Your task to perform on an android device: What's on my calendar tomorrow? Image 0: 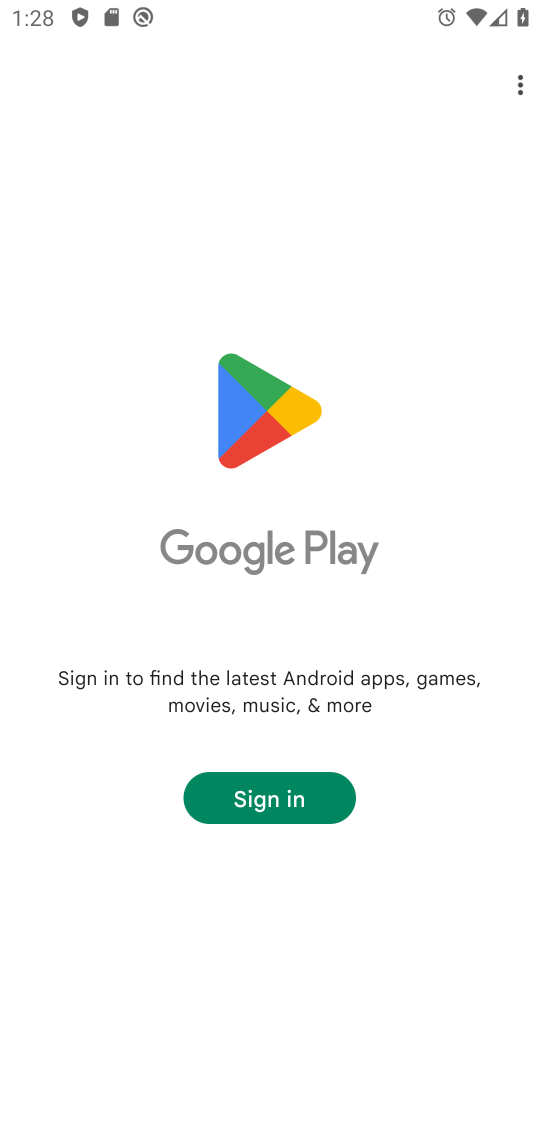
Step 0: press home button
Your task to perform on an android device: What's on my calendar tomorrow? Image 1: 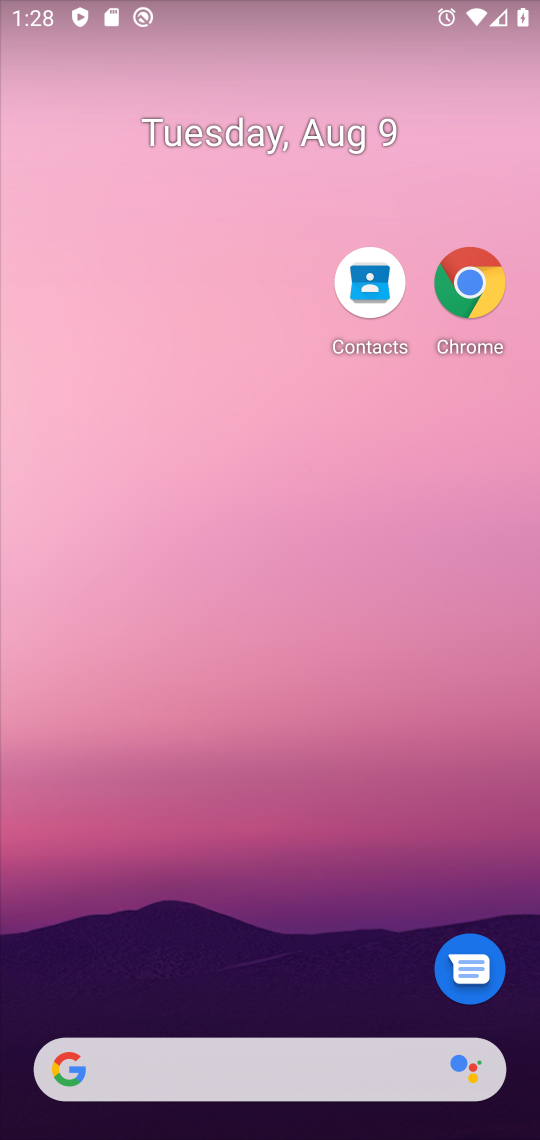
Step 1: drag from (267, 897) to (382, 96)
Your task to perform on an android device: What's on my calendar tomorrow? Image 2: 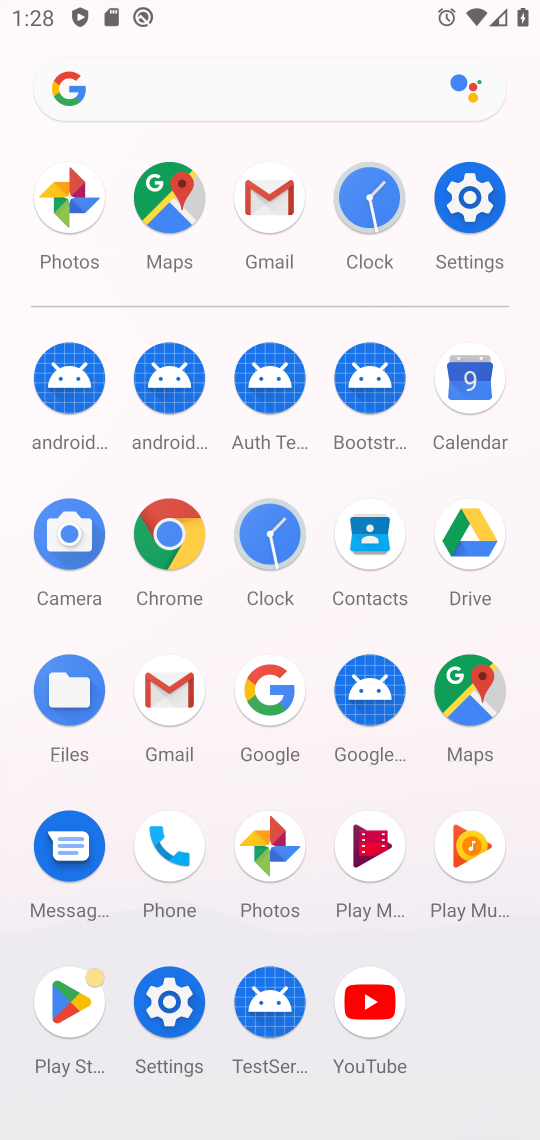
Step 2: click (458, 402)
Your task to perform on an android device: What's on my calendar tomorrow? Image 3: 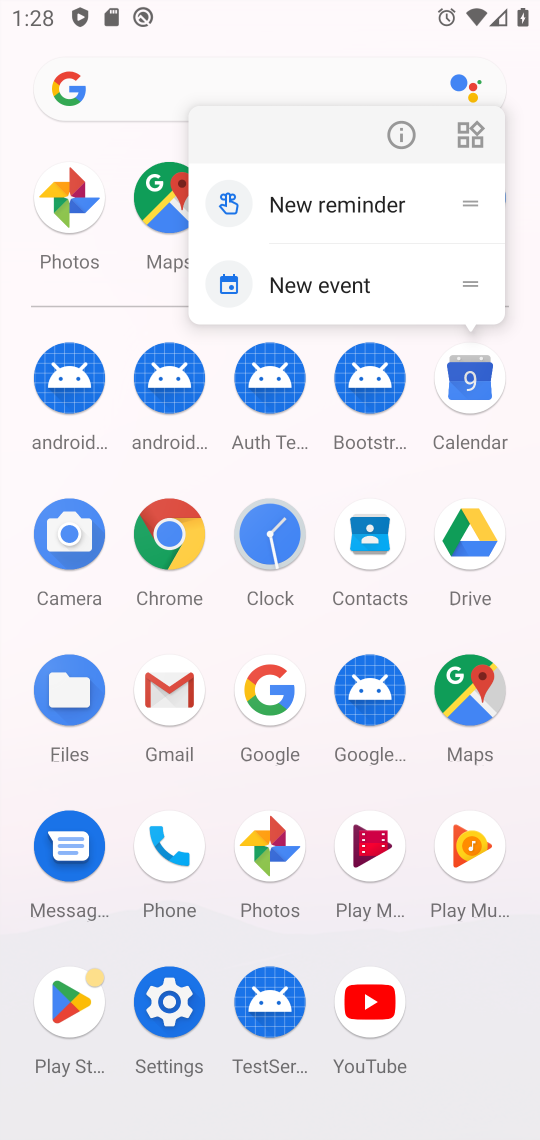
Step 3: click (398, 142)
Your task to perform on an android device: What's on my calendar tomorrow? Image 4: 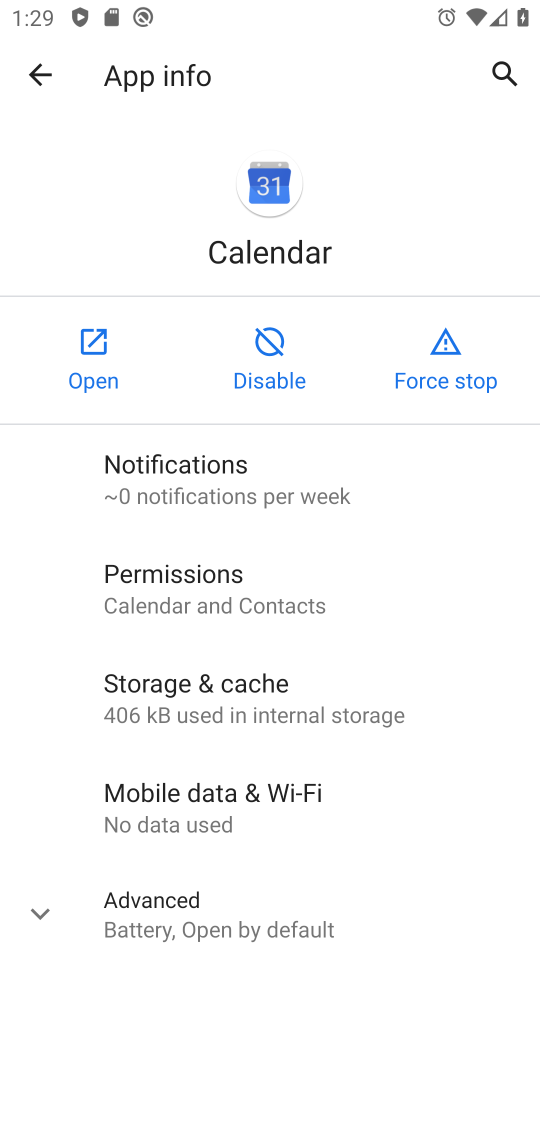
Step 4: click (107, 366)
Your task to perform on an android device: What's on my calendar tomorrow? Image 5: 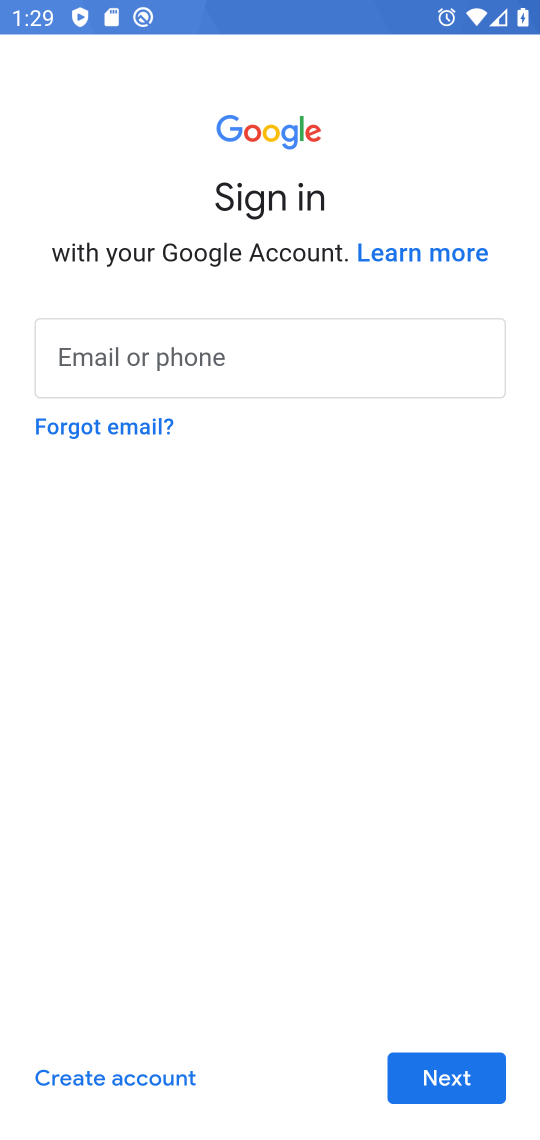
Step 5: press back button
Your task to perform on an android device: What's on my calendar tomorrow? Image 6: 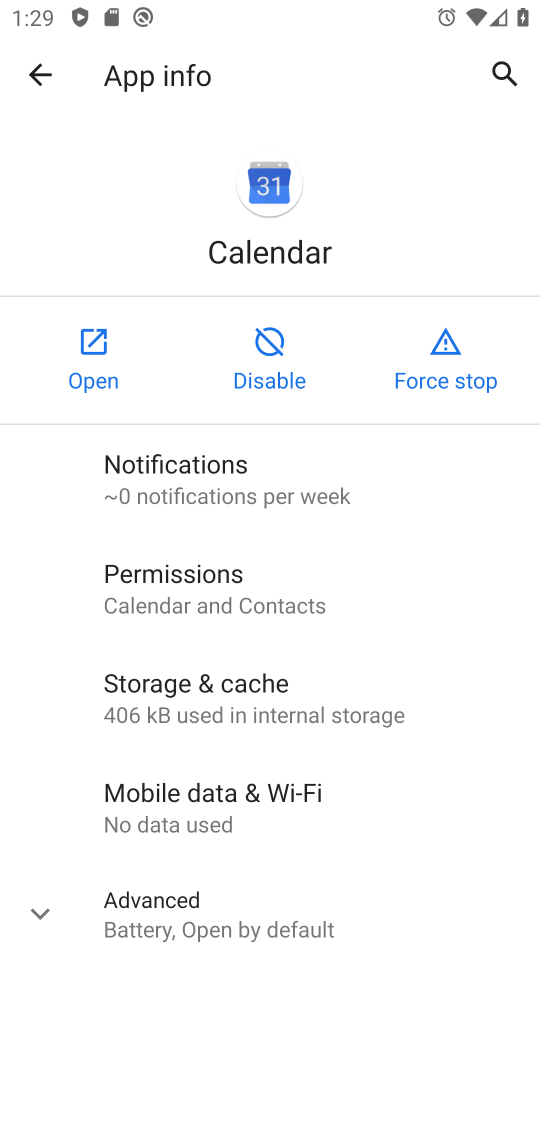
Step 6: click (98, 368)
Your task to perform on an android device: What's on my calendar tomorrow? Image 7: 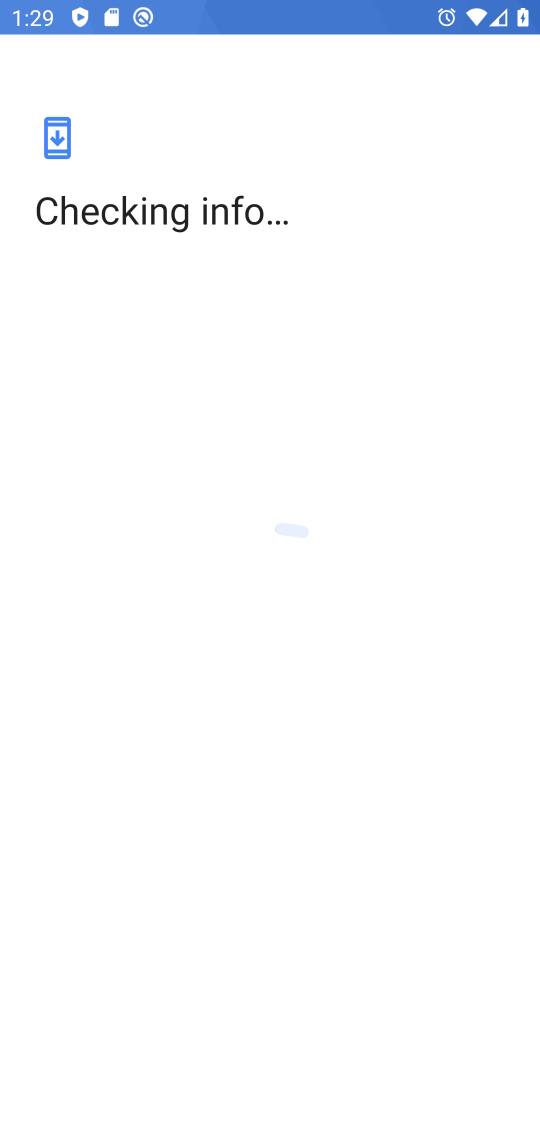
Step 7: task complete